Your task to perform on an android device: visit the assistant section in the google photos Image 0: 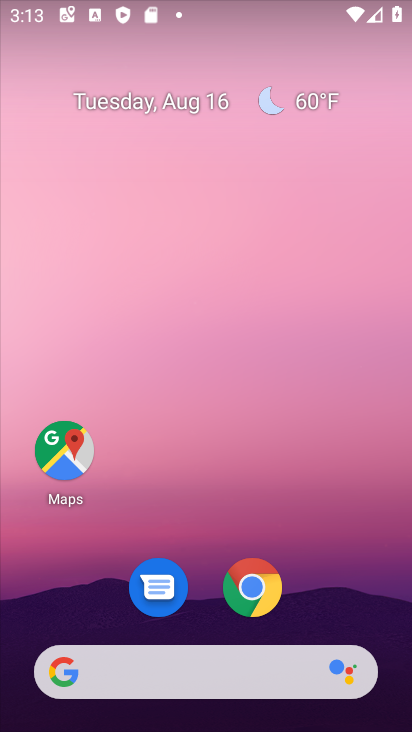
Step 0: drag from (166, 393) to (233, 41)
Your task to perform on an android device: visit the assistant section in the google photos Image 1: 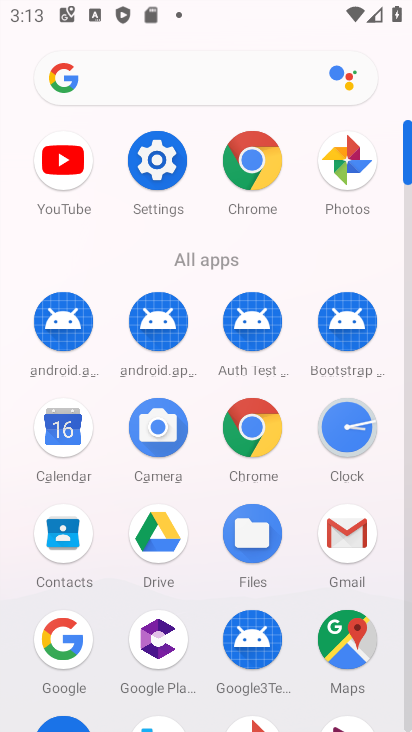
Step 1: click (352, 169)
Your task to perform on an android device: visit the assistant section in the google photos Image 2: 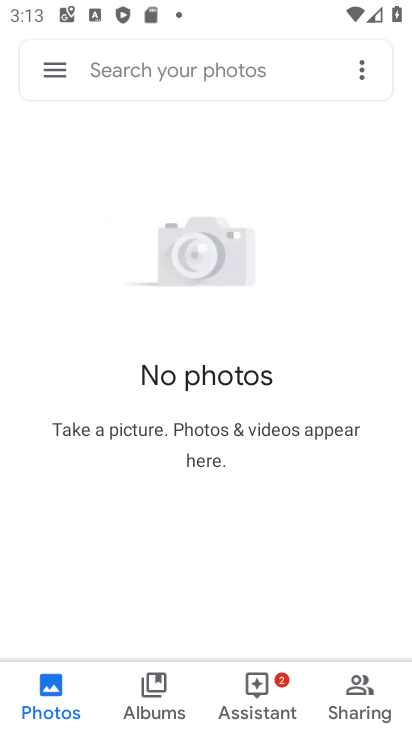
Step 2: click (267, 696)
Your task to perform on an android device: visit the assistant section in the google photos Image 3: 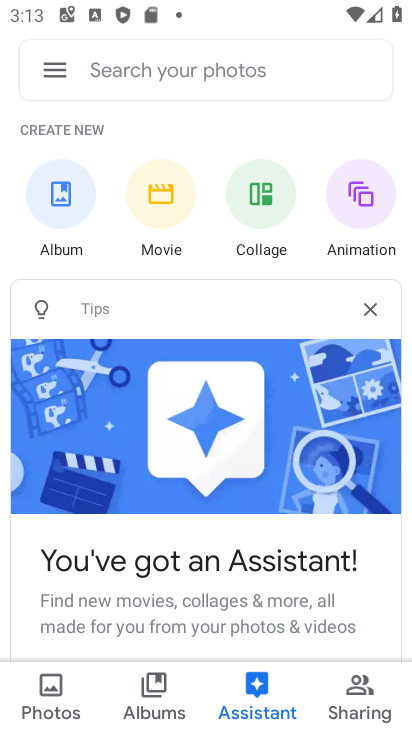
Step 3: task complete